Your task to perform on an android device: uninstall "Google Sheets" Image 0: 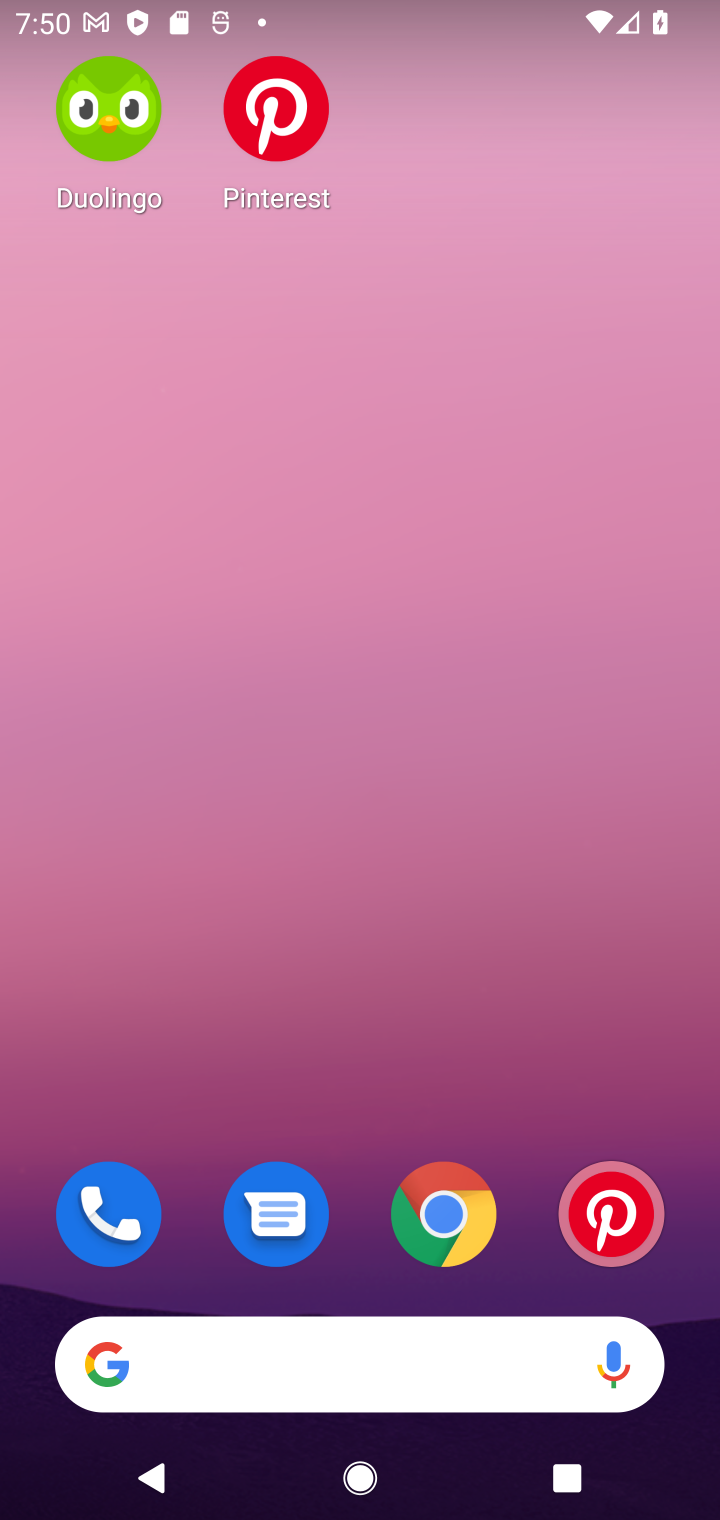
Step 0: drag from (361, 1279) to (436, 244)
Your task to perform on an android device: uninstall "Google Sheets" Image 1: 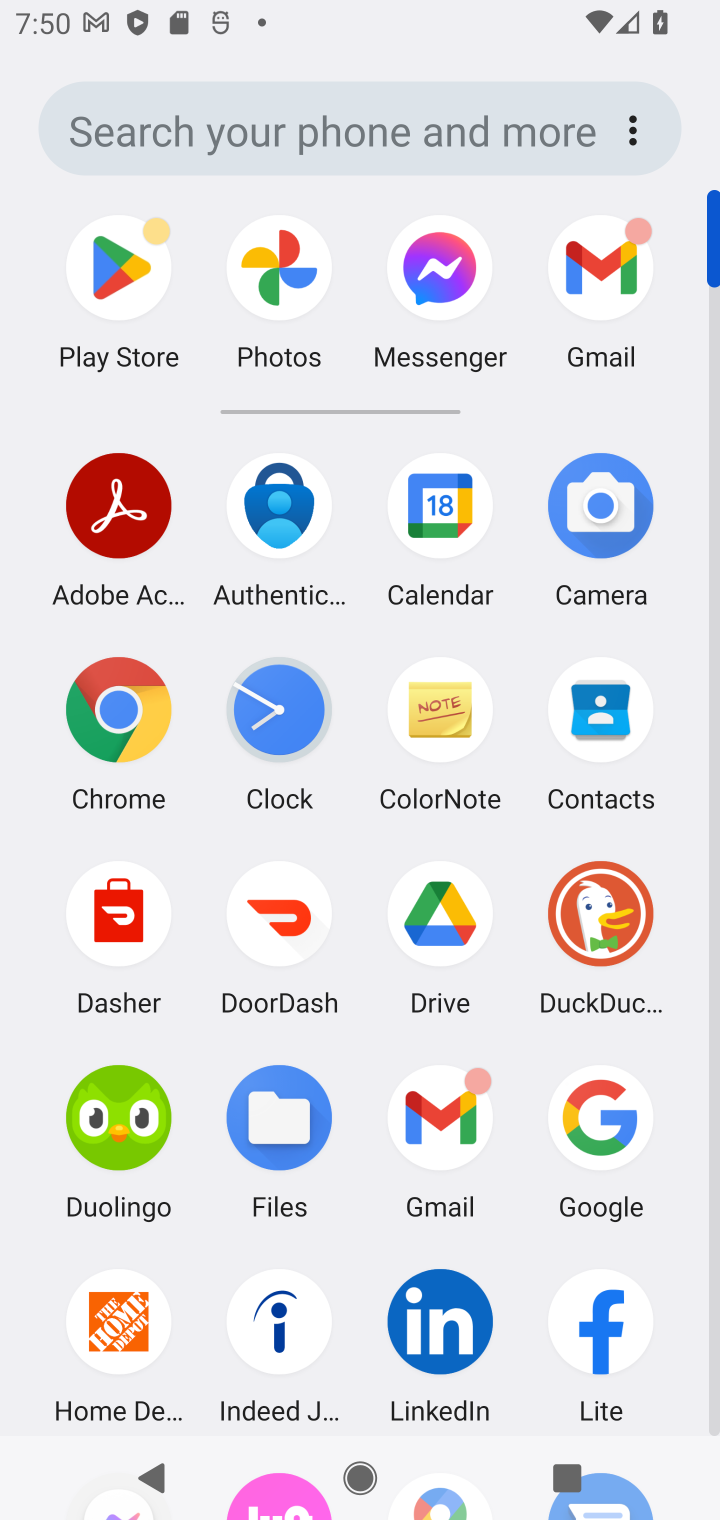
Step 1: click (83, 247)
Your task to perform on an android device: uninstall "Google Sheets" Image 2: 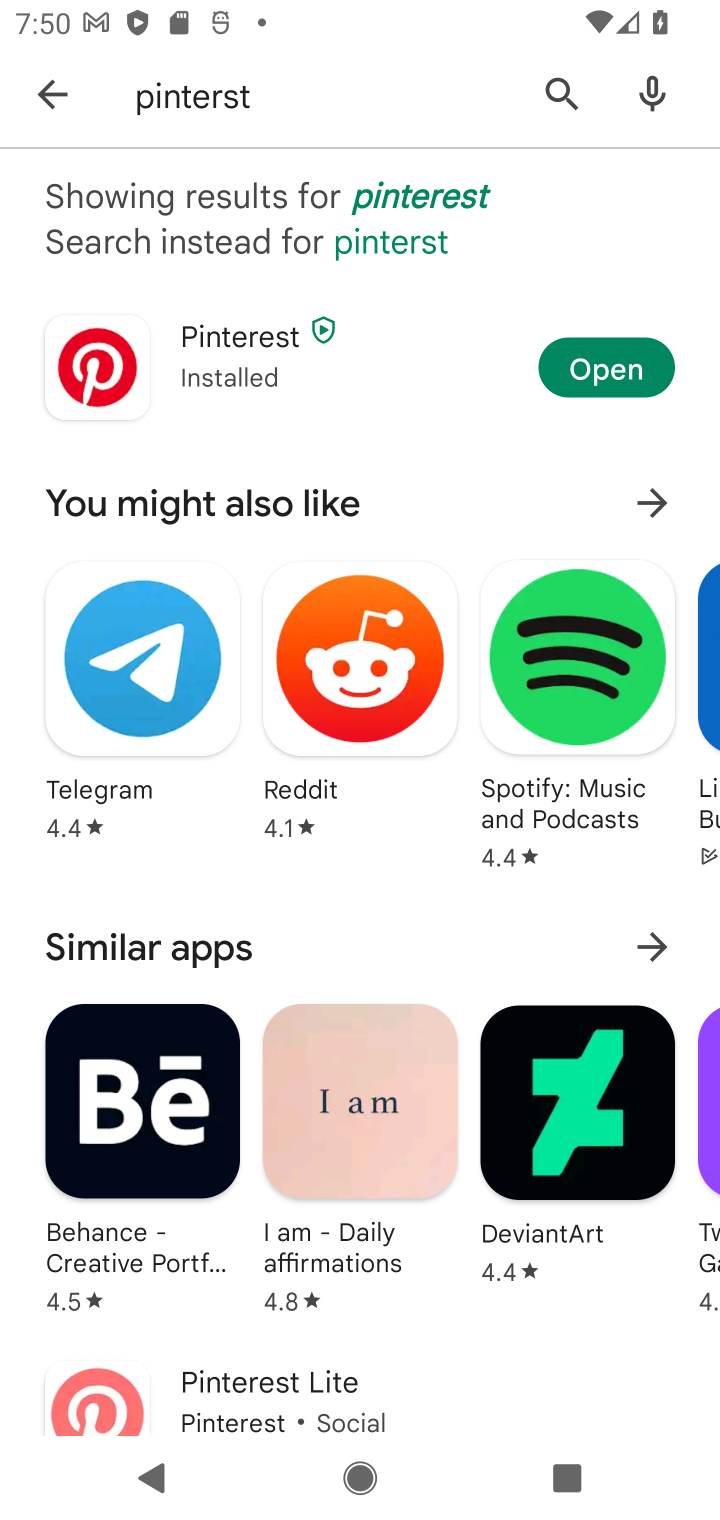
Step 2: click (554, 90)
Your task to perform on an android device: uninstall "Google Sheets" Image 3: 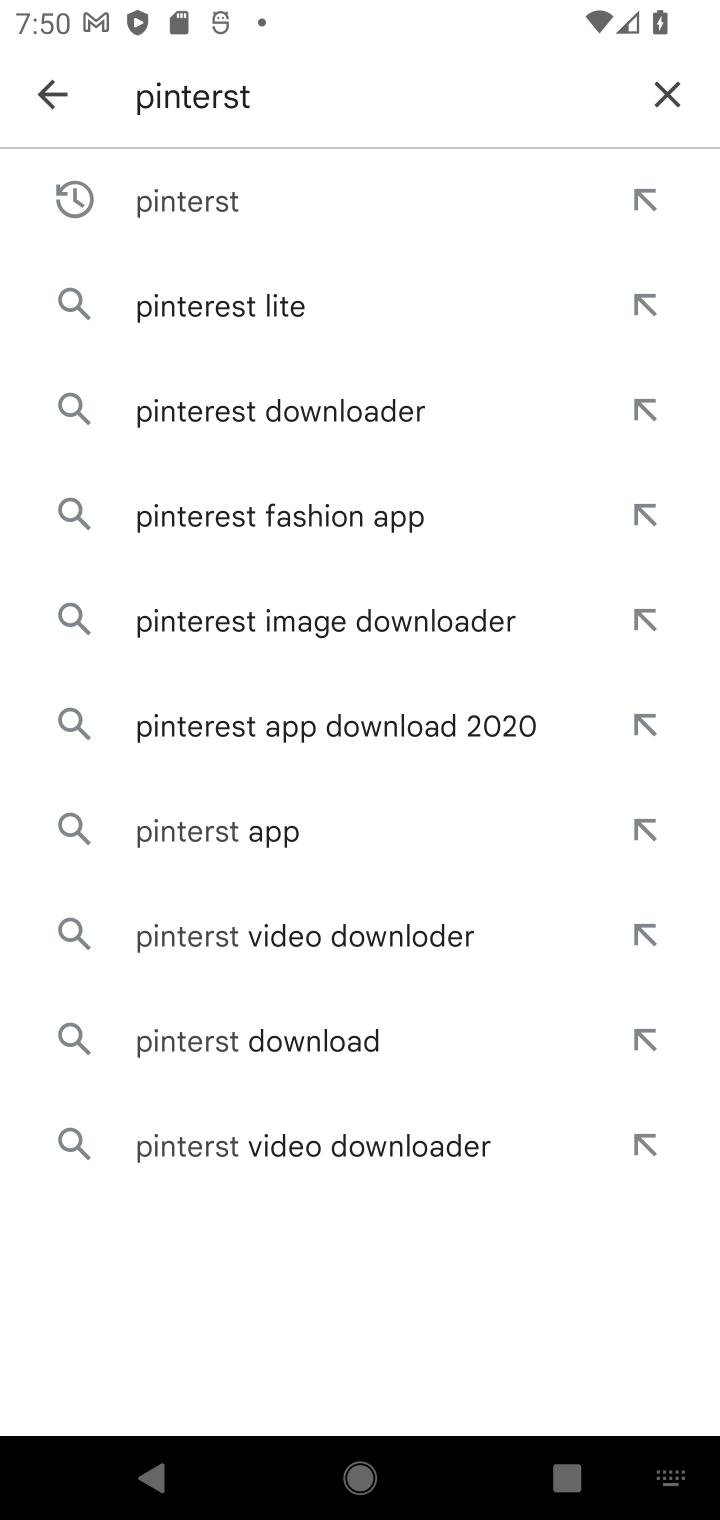
Step 3: press back button
Your task to perform on an android device: uninstall "Google Sheets" Image 4: 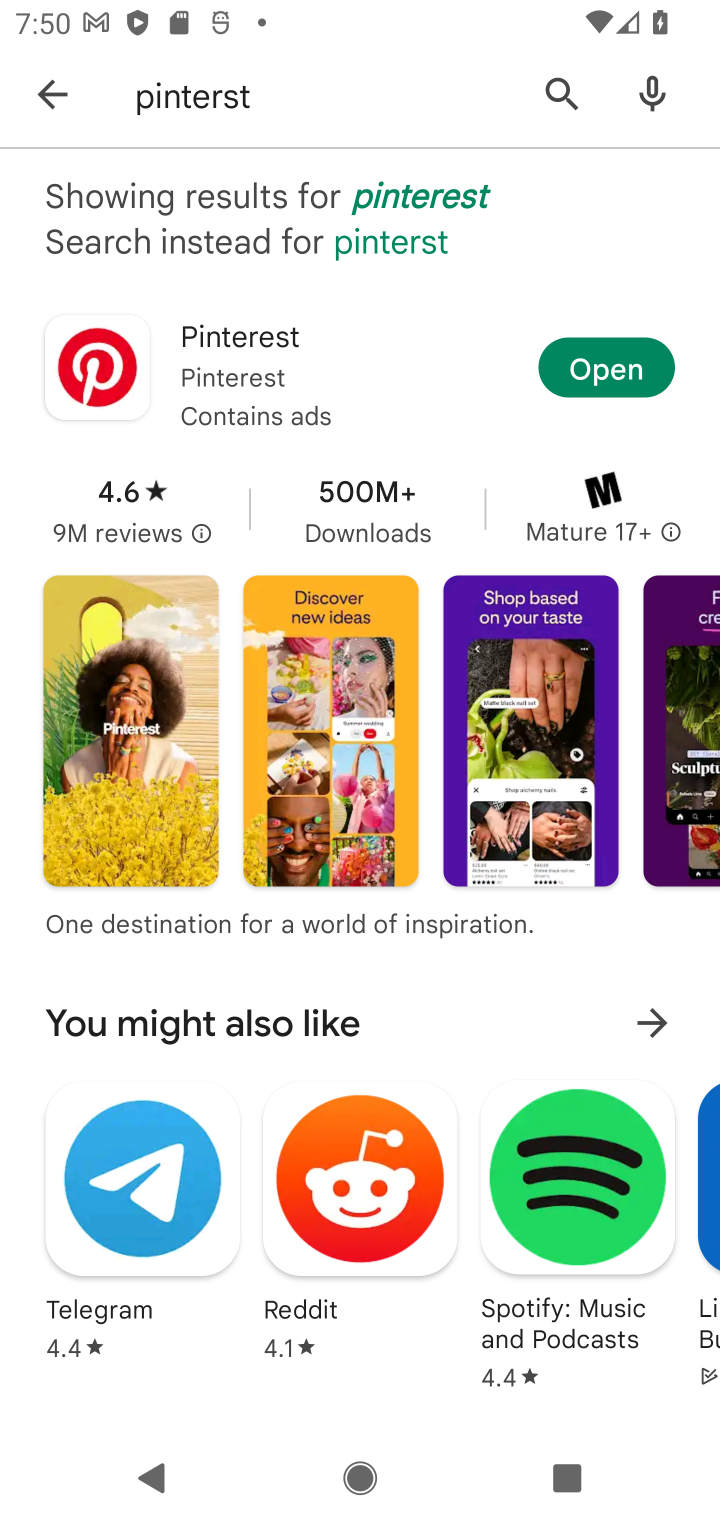
Step 4: press back button
Your task to perform on an android device: uninstall "Google Sheets" Image 5: 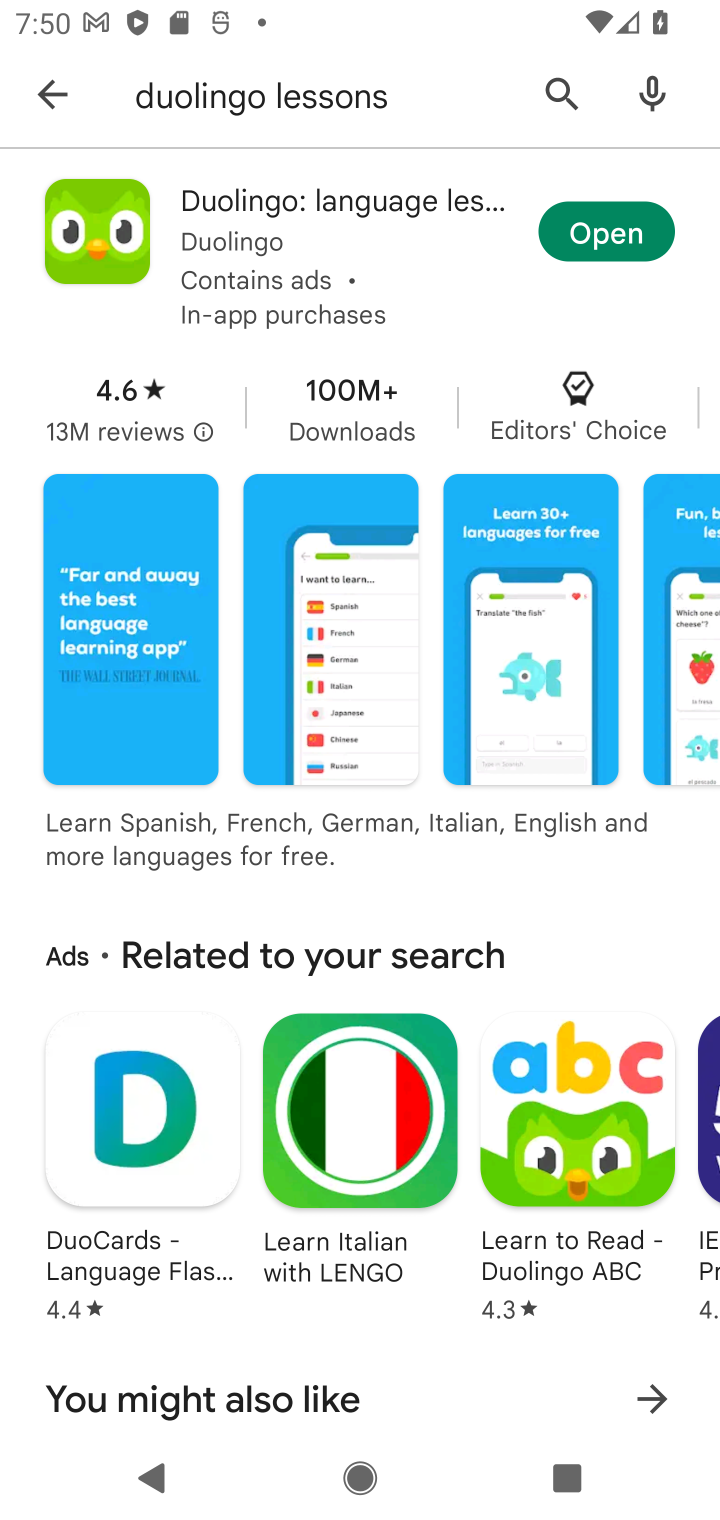
Step 5: press back button
Your task to perform on an android device: uninstall "Google Sheets" Image 6: 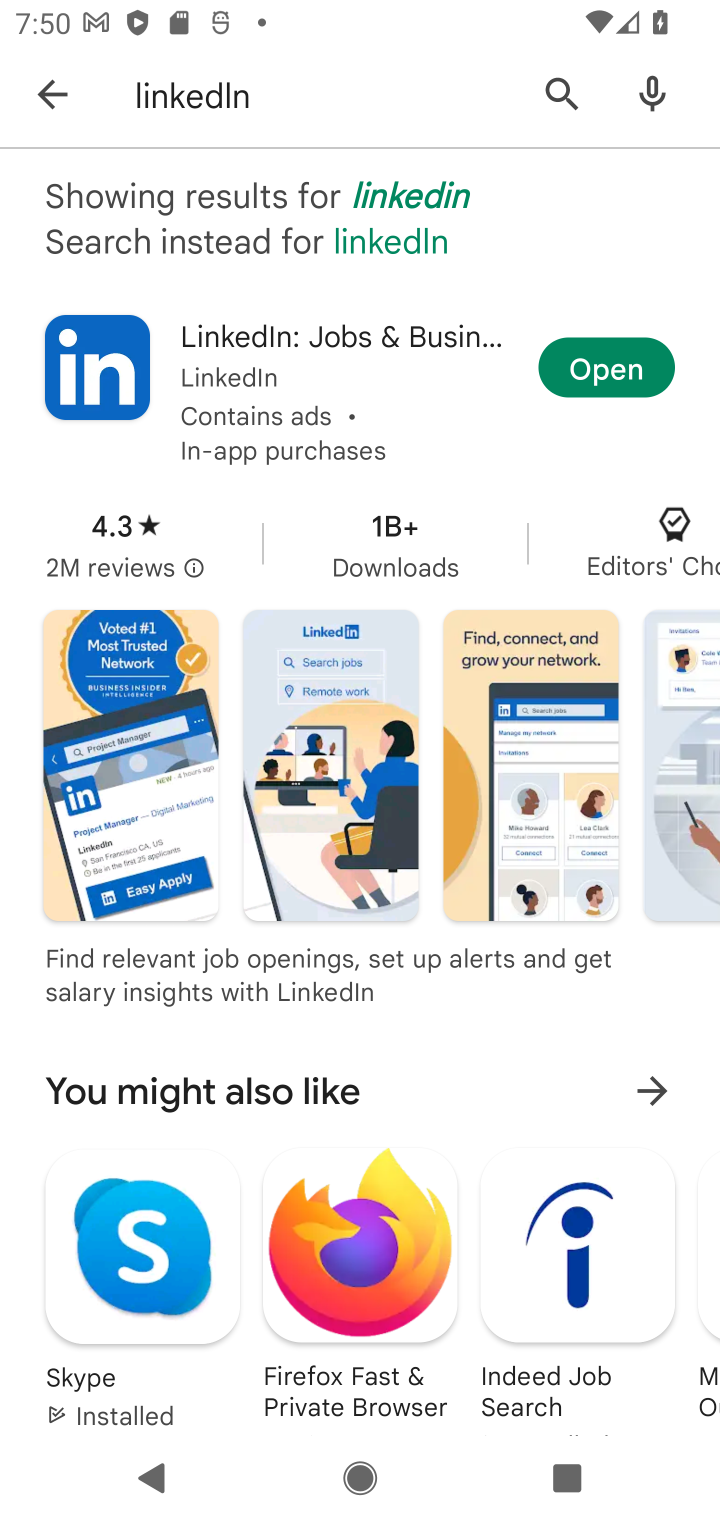
Step 6: press back button
Your task to perform on an android device: uninstall "Google Sheets" Image 7: 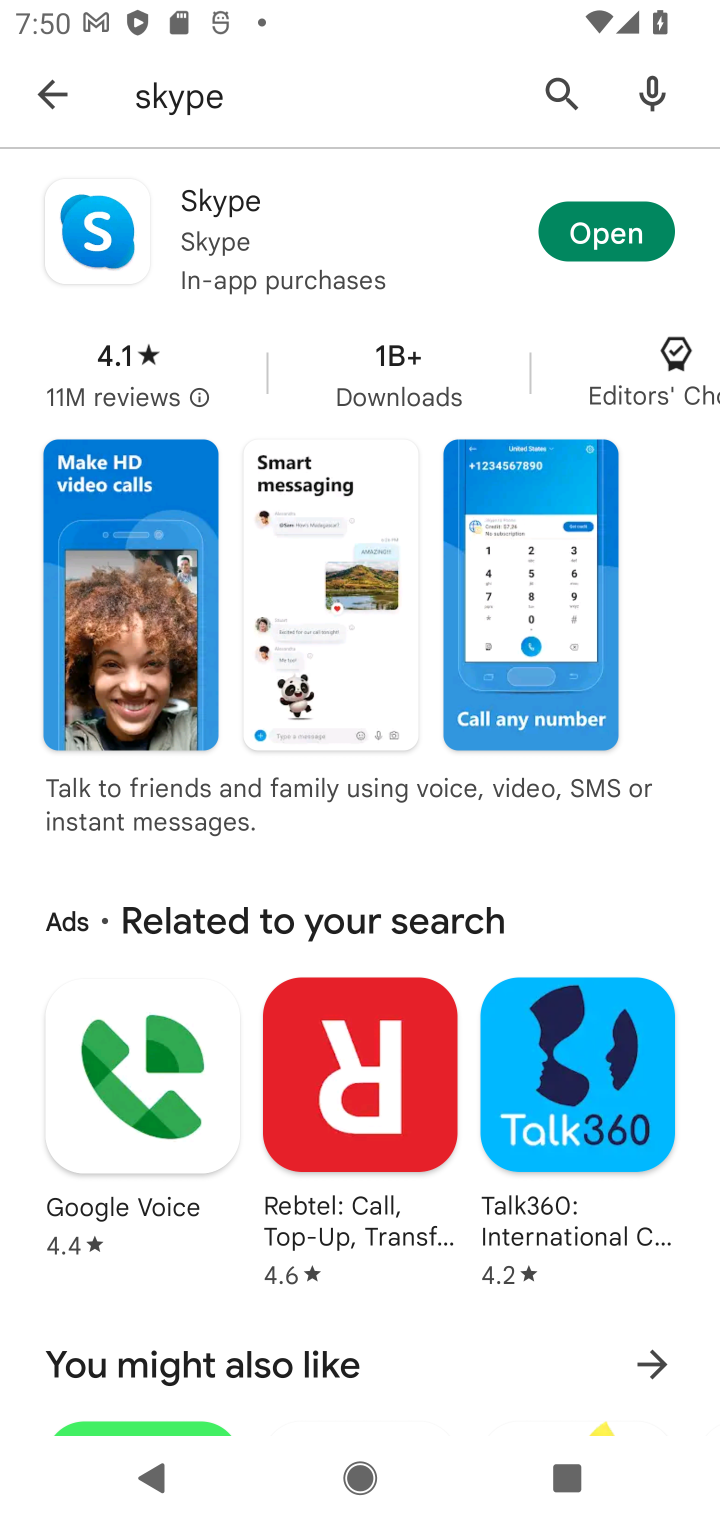
Step 7: click (556, 91)
Your task to perform on an android device: uninstall "Google Sheets" Image 8: 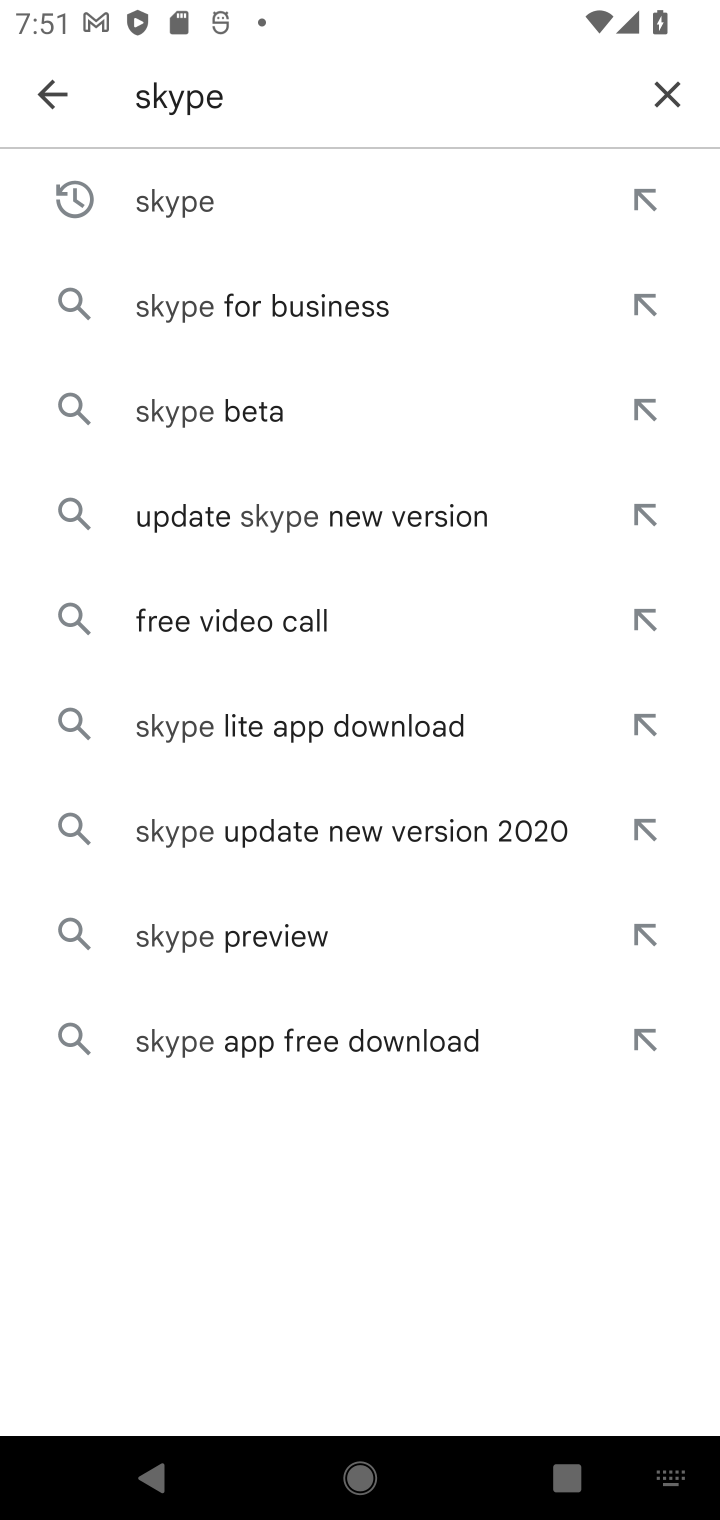
Step 8: click (662, 87)
Your task to perform on an android device: uninstall "Google Sheets" Image 9: 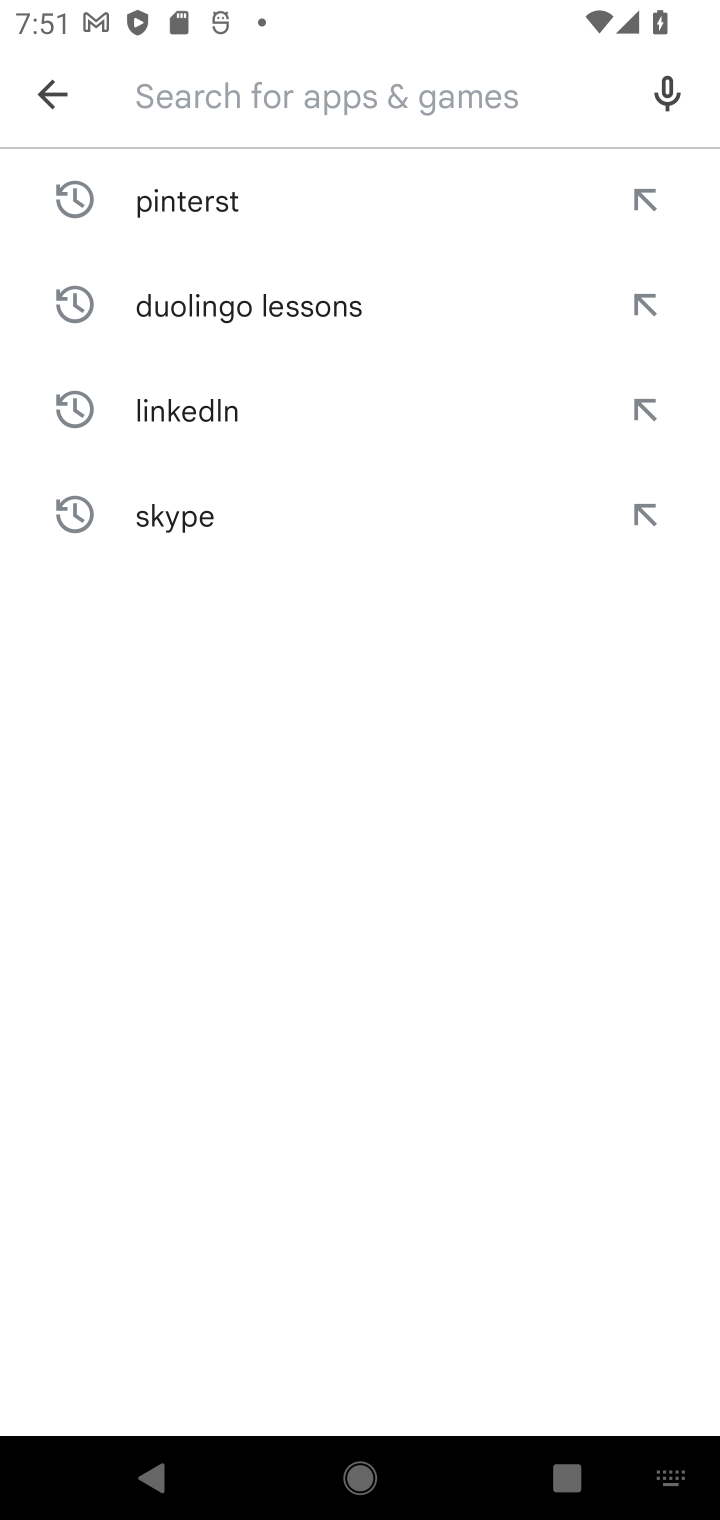
Step 9: click (313, 113)
Your task to perform on an android device: uninstall "Google Sheets" Image 10: 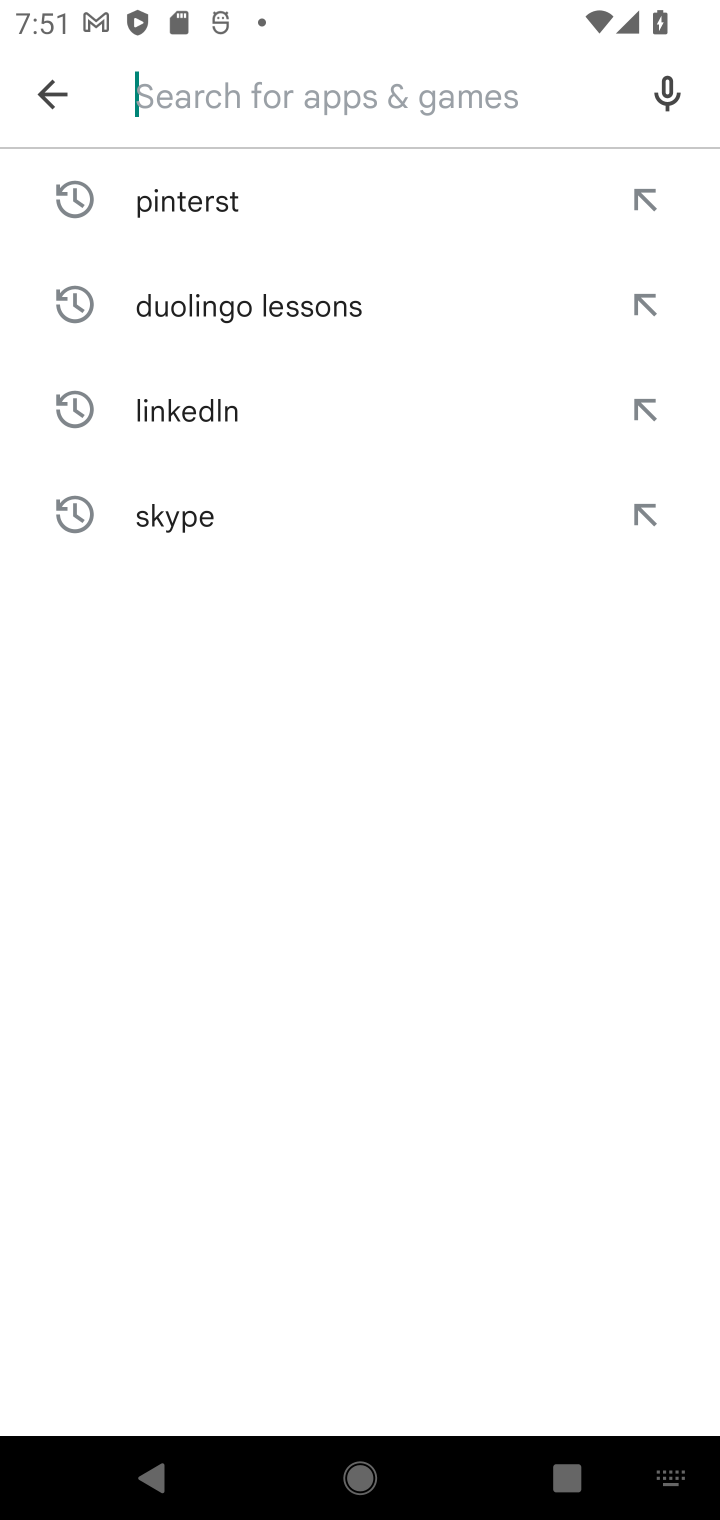
Step 10: type "google sheets"
Your task to perform on an android device: uninstall "Google Sheets" Image 11: 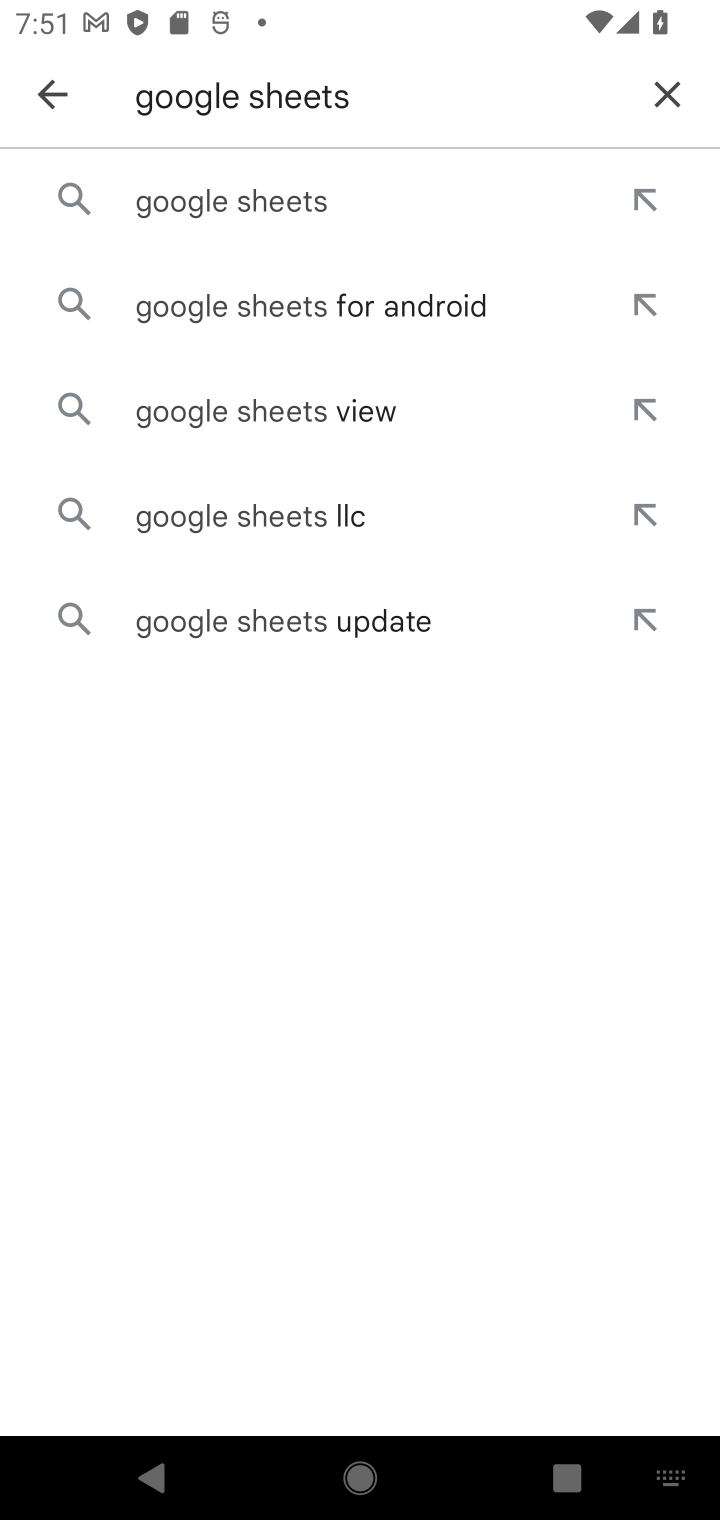
Step 11: click (287, 214)
Your task to perform on an android device: uninstall "Google Sheets" Image 12: 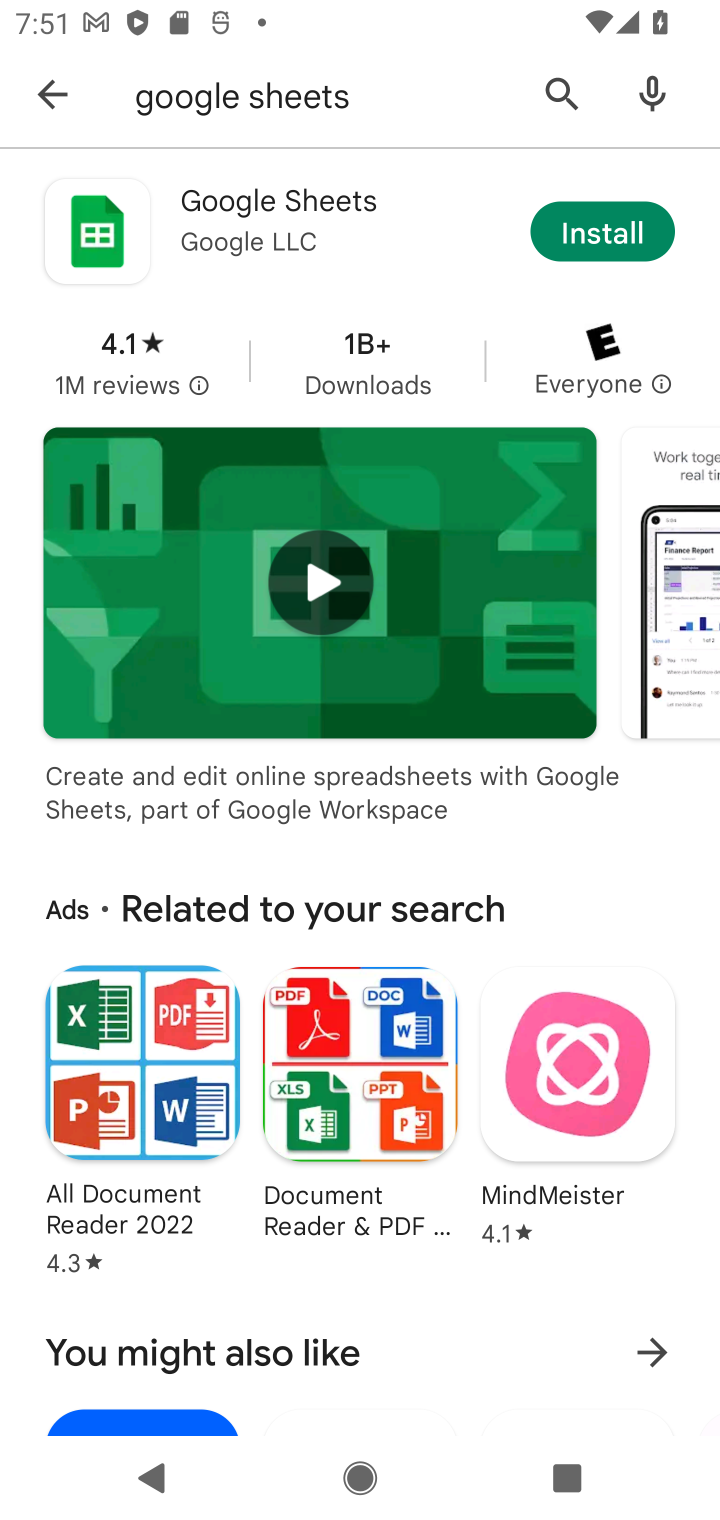
Step 12: task complete